Your task to perform on an android device: Open my contact list Image 0: 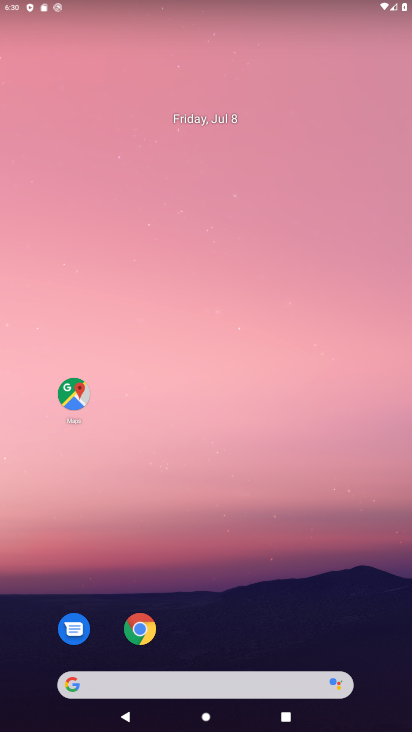
Step 0: press home button
Your task to perform on an android device: Open my contact list Image 1: 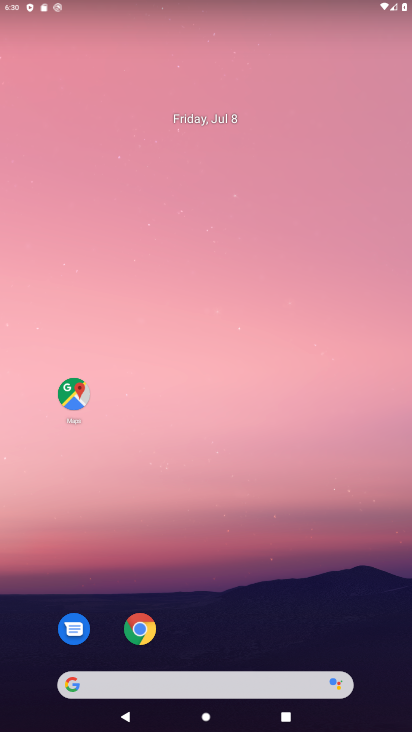
Step 1: drag from (338, 601) to (294, 56)
Your task to perform on an android device: Open my contact list Image 2: 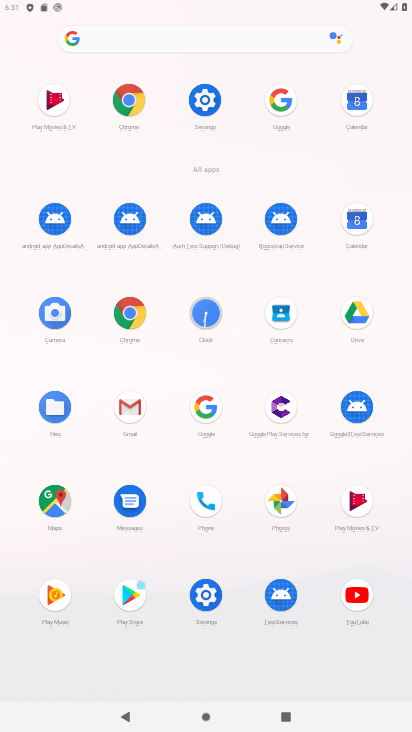
Step 2: click (283, 318)
Your task to perform on an android device: Open my contact list Image 3: 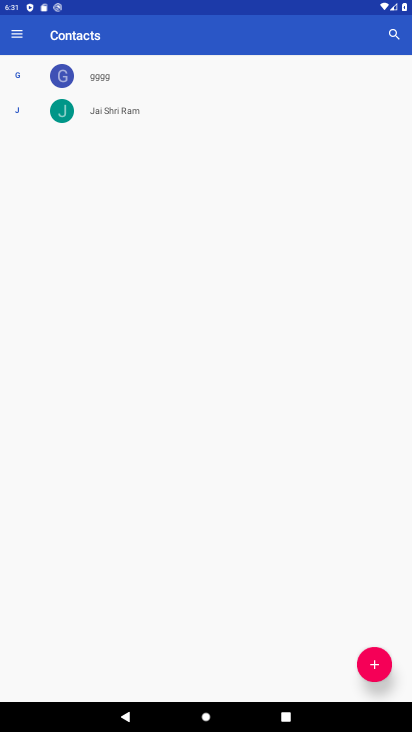
Step 3: task complete